Your task to perform on an android device: check out phone information Image 0: 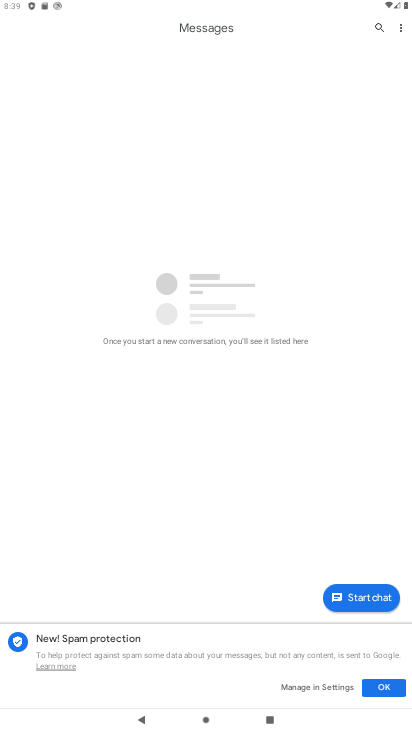
Step 0: press home button
Your task to perform on an android device: check out phone information Image 1: 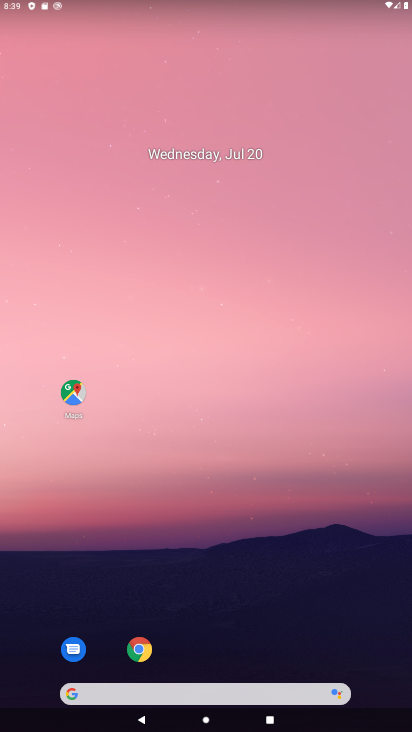
Step 1: drag from (182, 276) to (182, 241)
Your task to perform on an android device: check out phone information Image 2: 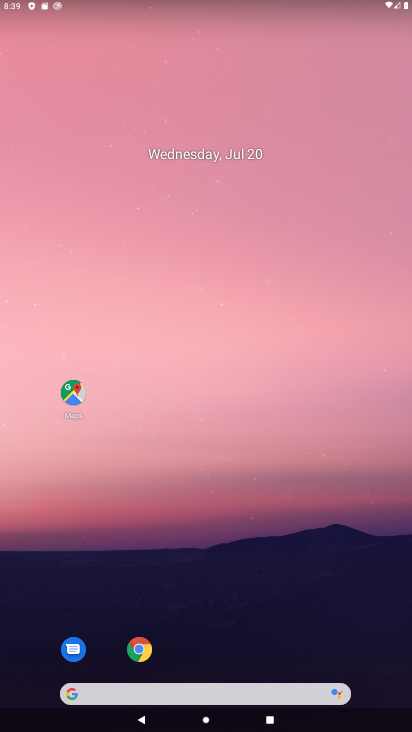
Step 2: drag from (212, 662) to (197, 143)
Your task to perform on an android device: check out phone information Image 3: 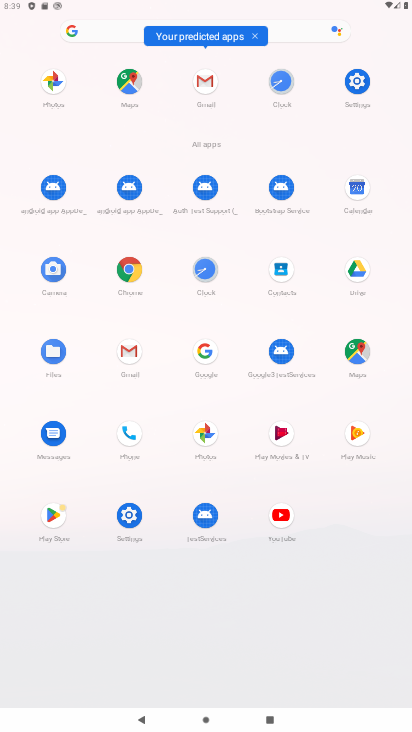
Step 3: click (123, 438)
Your task to perform on an android device: check out phone information Image 4: 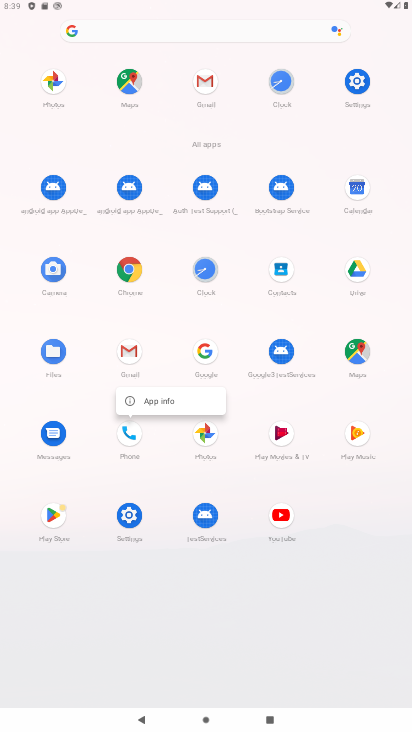
Step 4: click (139, 399)
Your task to perform on an android device: check out phone information Image 5: 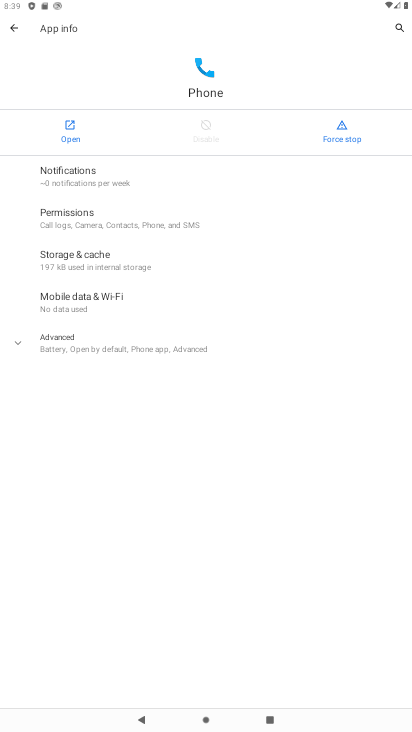
Step 5: click (83, 343)
Your task to perform on an android device: check out phone information Image 6: 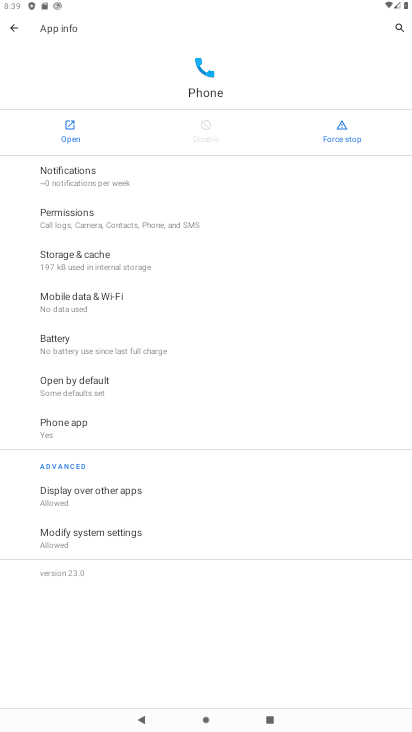
Step 6: task complete